Your task to perform on an android device: When is my next meeting? Image 0: 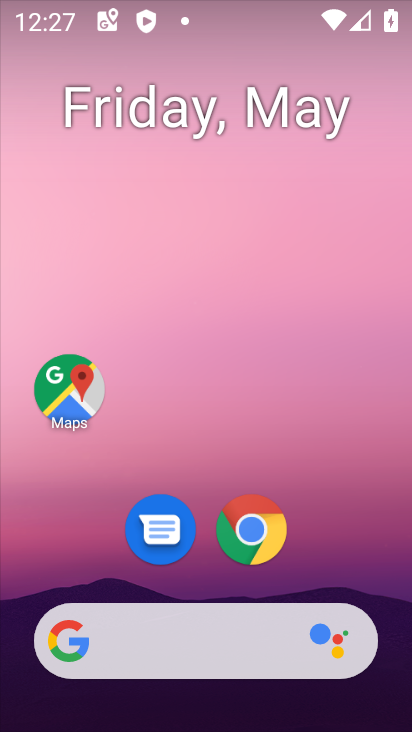
Step 0: drag from (325, 502) to (192, 236)
Your task to perform on an android device: When is my next meeting? Image 1: 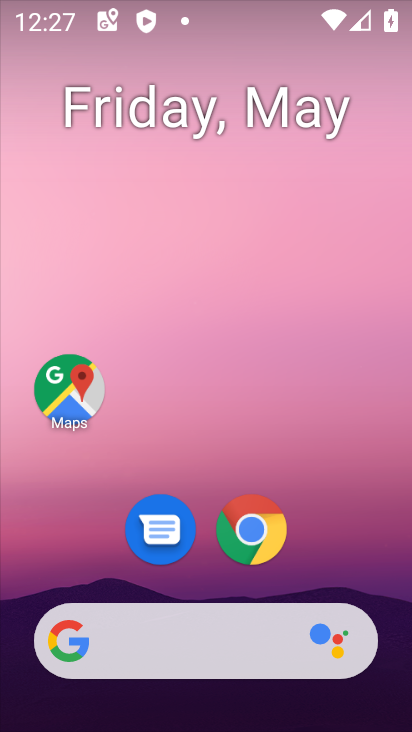
Step 1: drag from (335, 462) to (303, 63)
Your task to perform on an android device: When is my next meeting? Image 2: 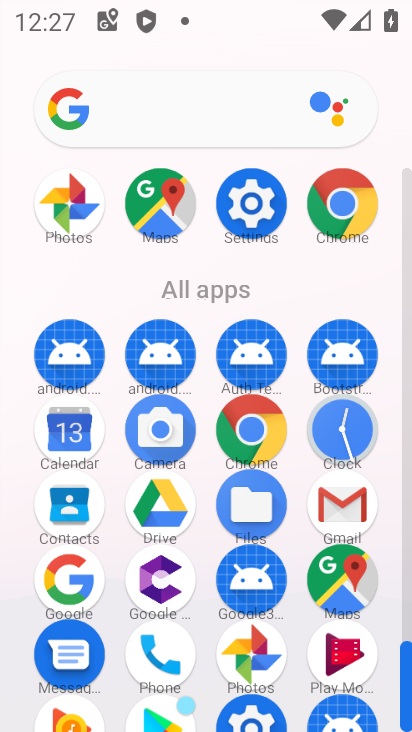
Step 2: click (67, 439)
Your task to perform on an android device: When is my next meeting? Image 3: 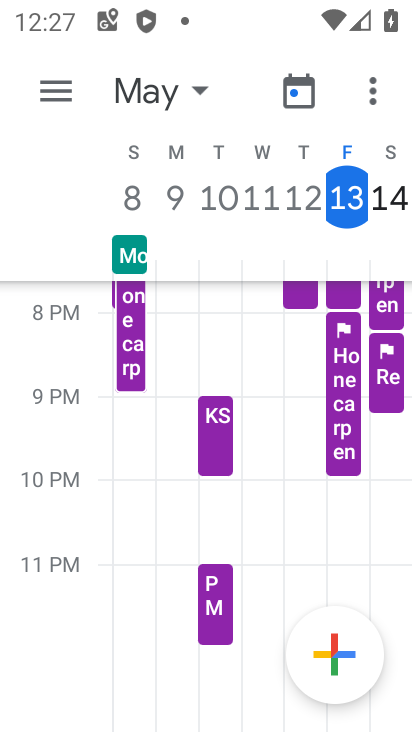
Step 3: click (52, 86)
Your task to perform on an android device: When is my next meeting? Image 4: 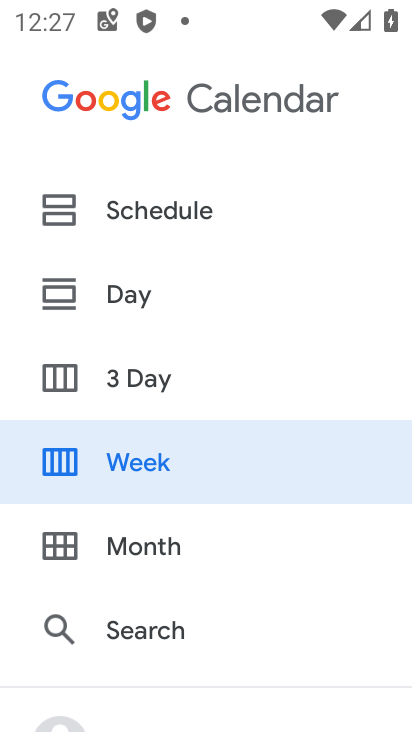
Step 4: click (72, 202)
Your task to perform on an android device: When is my next meeting? Image 5: 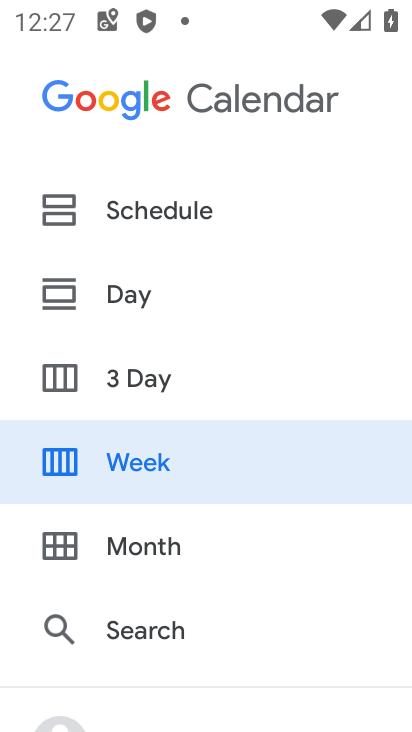
Step 5: click (167, 213)
Your task to perform on an android device: When is my next meeting? Image 6: 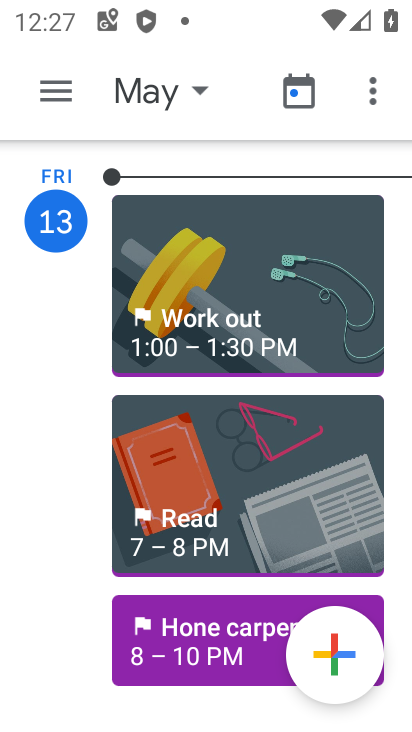
Step 6: click (204, 308)
Your task to perform on an android device: When is my next meeting? Image 7: 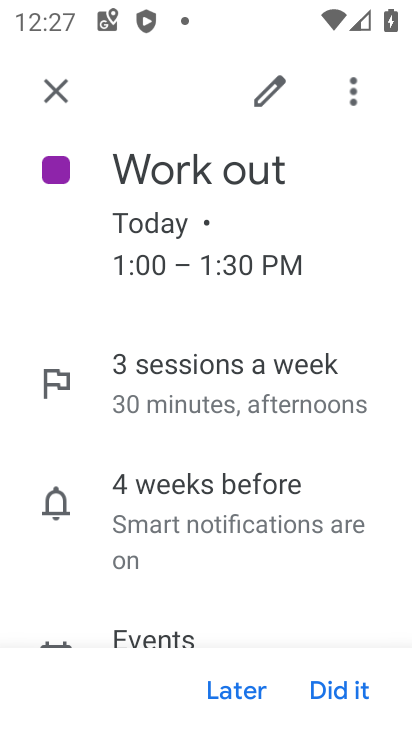
Step 7: task complete